Your task to perform on an android device: Open Maps and search for coffee Image 0: 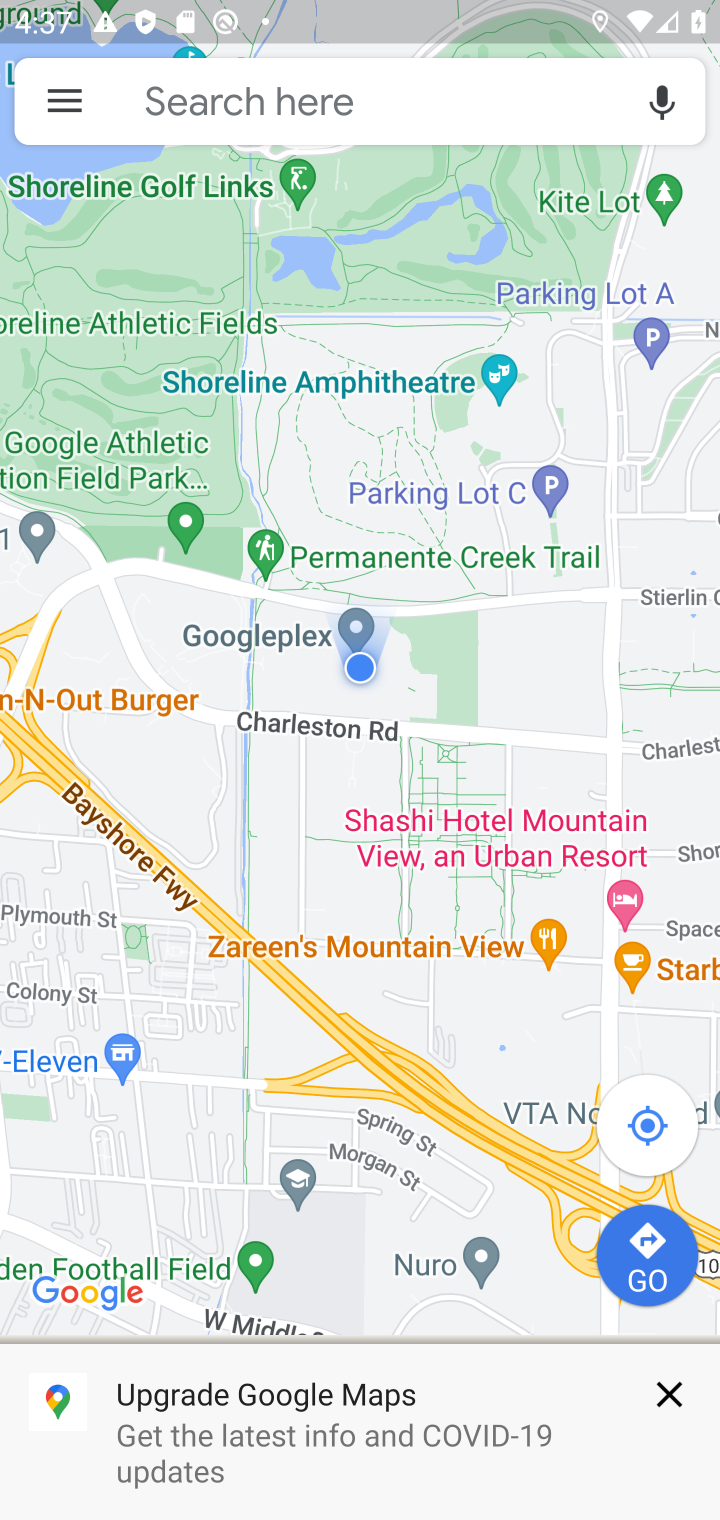
Step 0: press home button
Your task to perform on an android device: Open Maps and search for coffee Image 1: 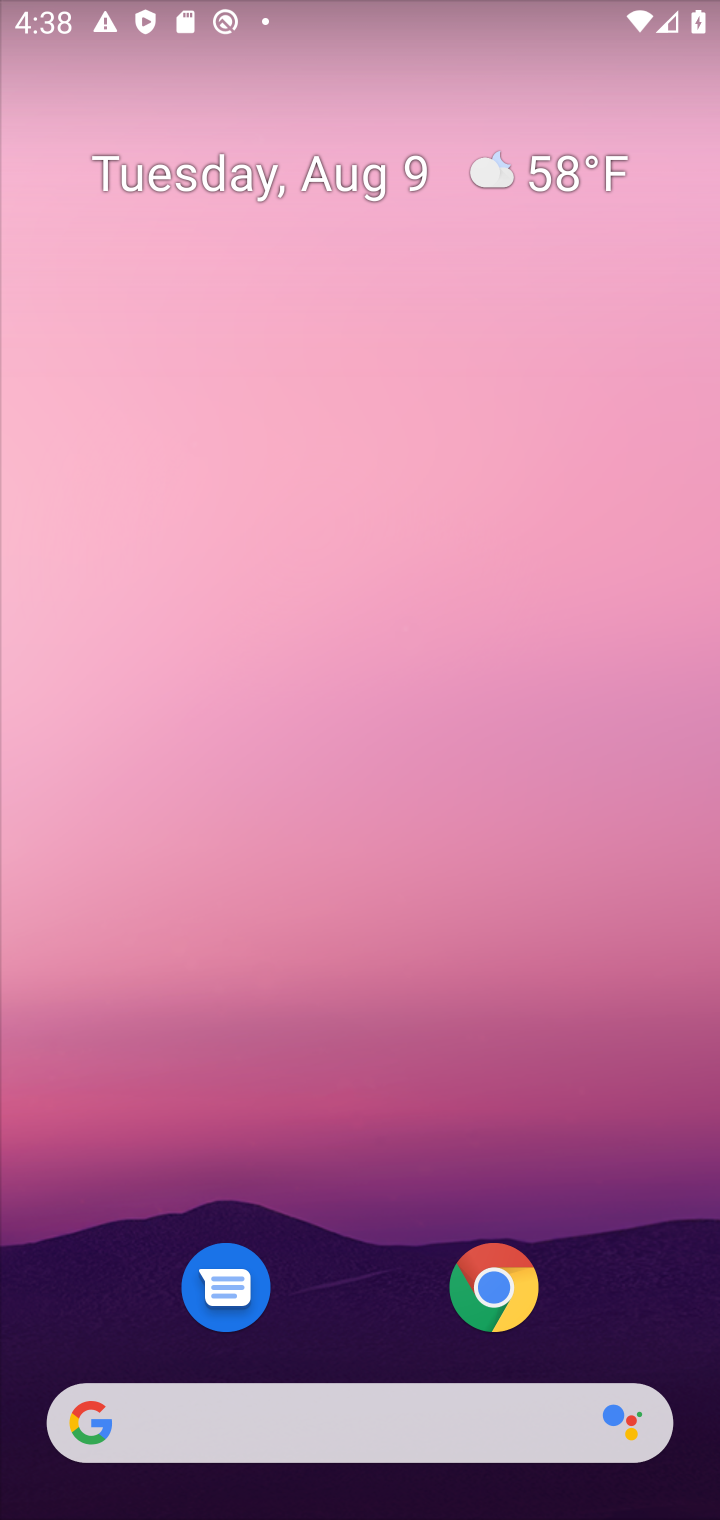
Step 1: drag from (348, 1150) to (377, 453)
Your task to perform on an android device: Open Maps and search for coffee Image 2: 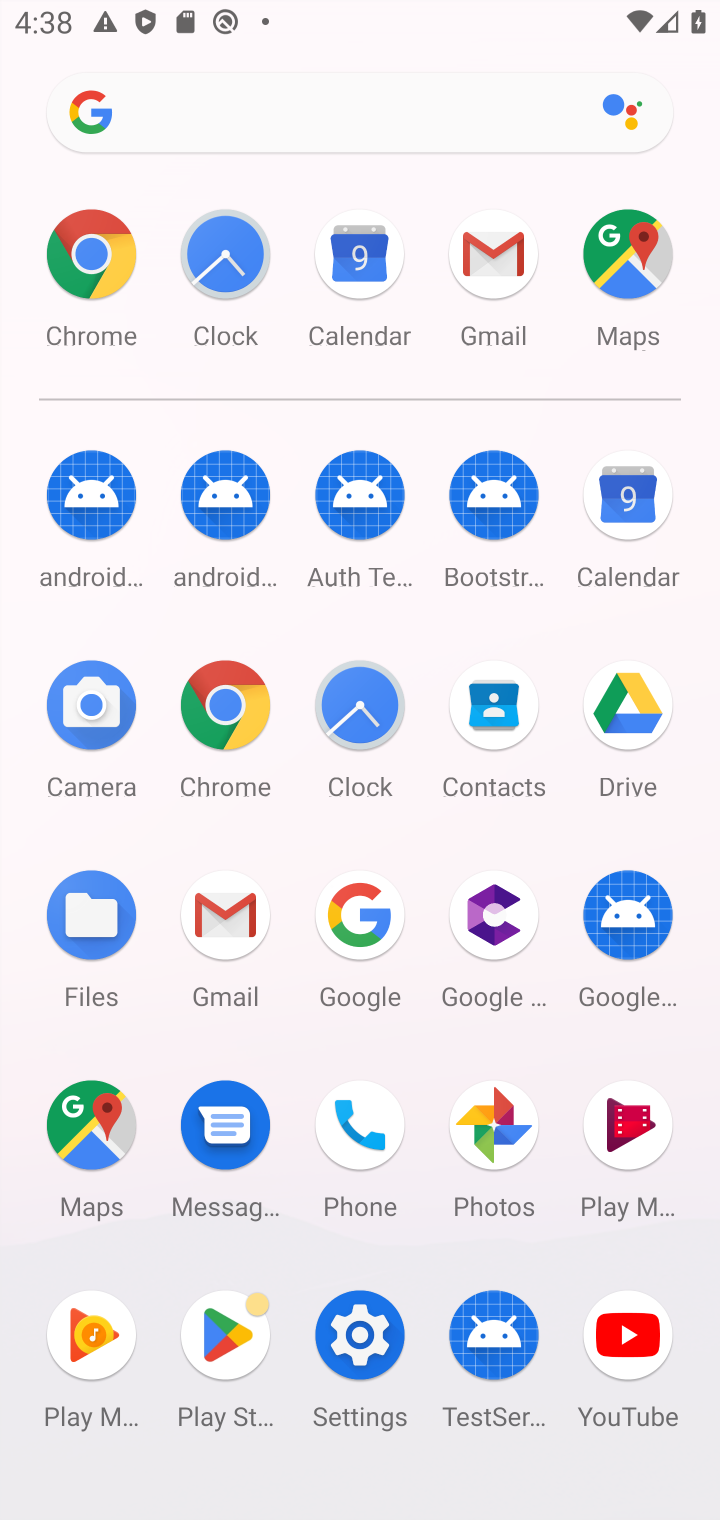
Step 2: click (627, 268)
Your task to perform on an android device: Open Maps and search for coffee Image 3: 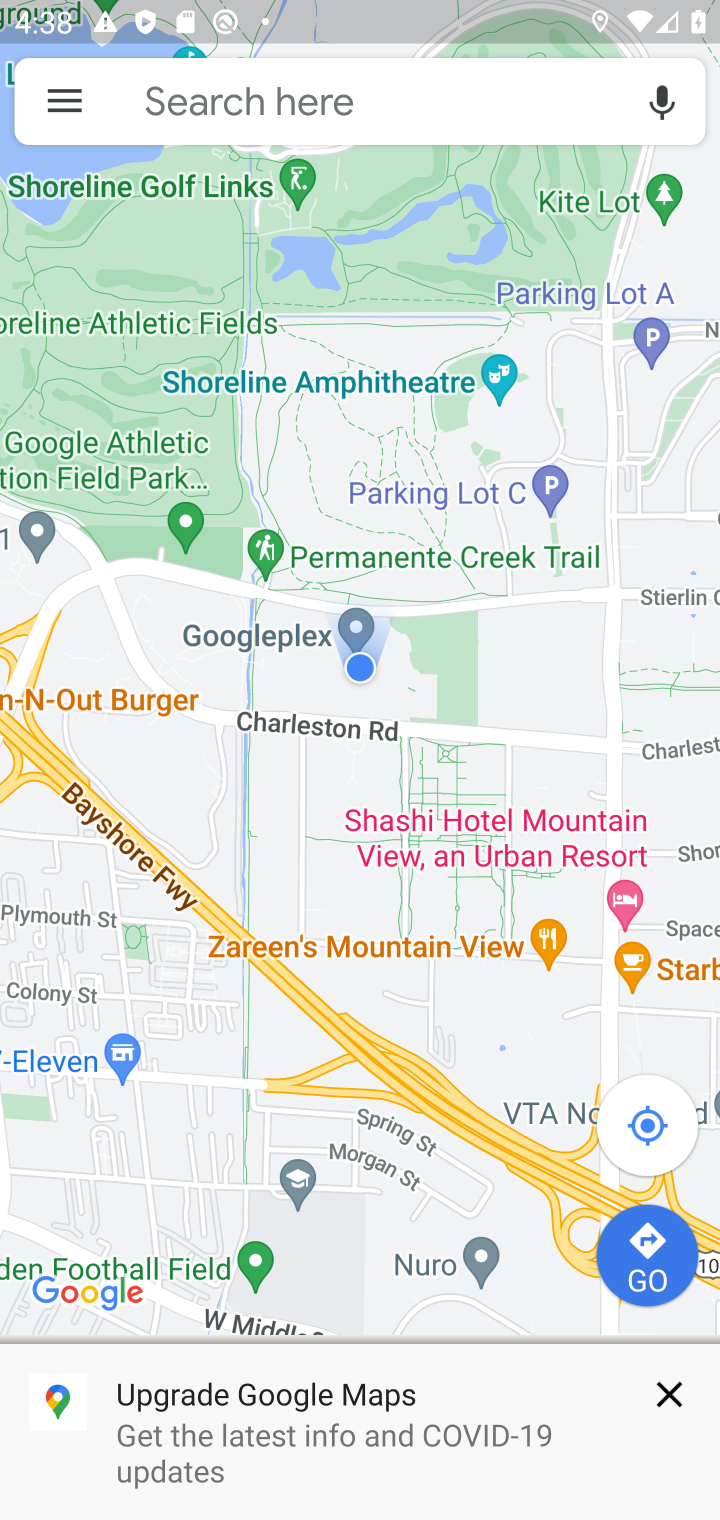
Step 3: click (391, 104)
Your task to perform on an android device: Open Maps and search for coffee Image 4: 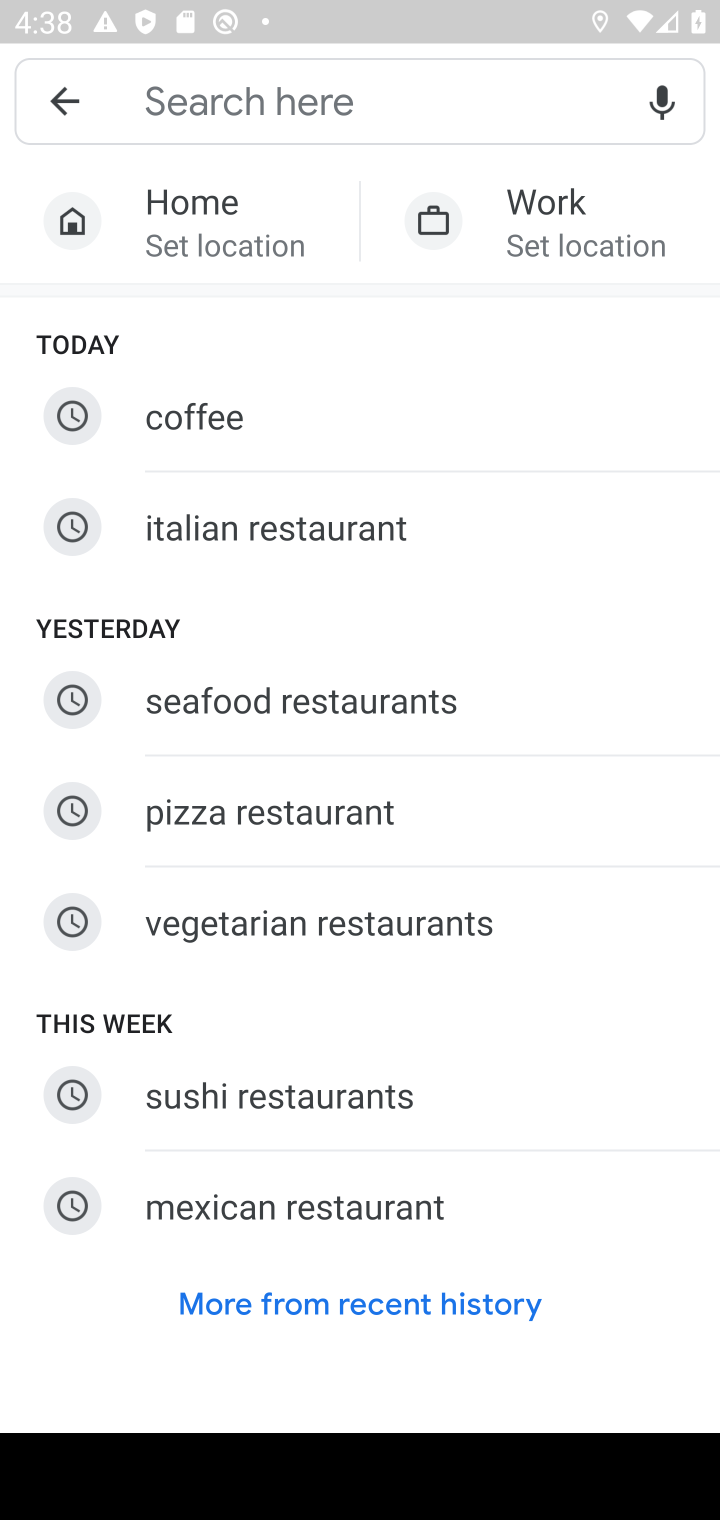
Step 4: type "coffee"
Your task to perform on an android device: Open Maps and search for coffee Image 5: 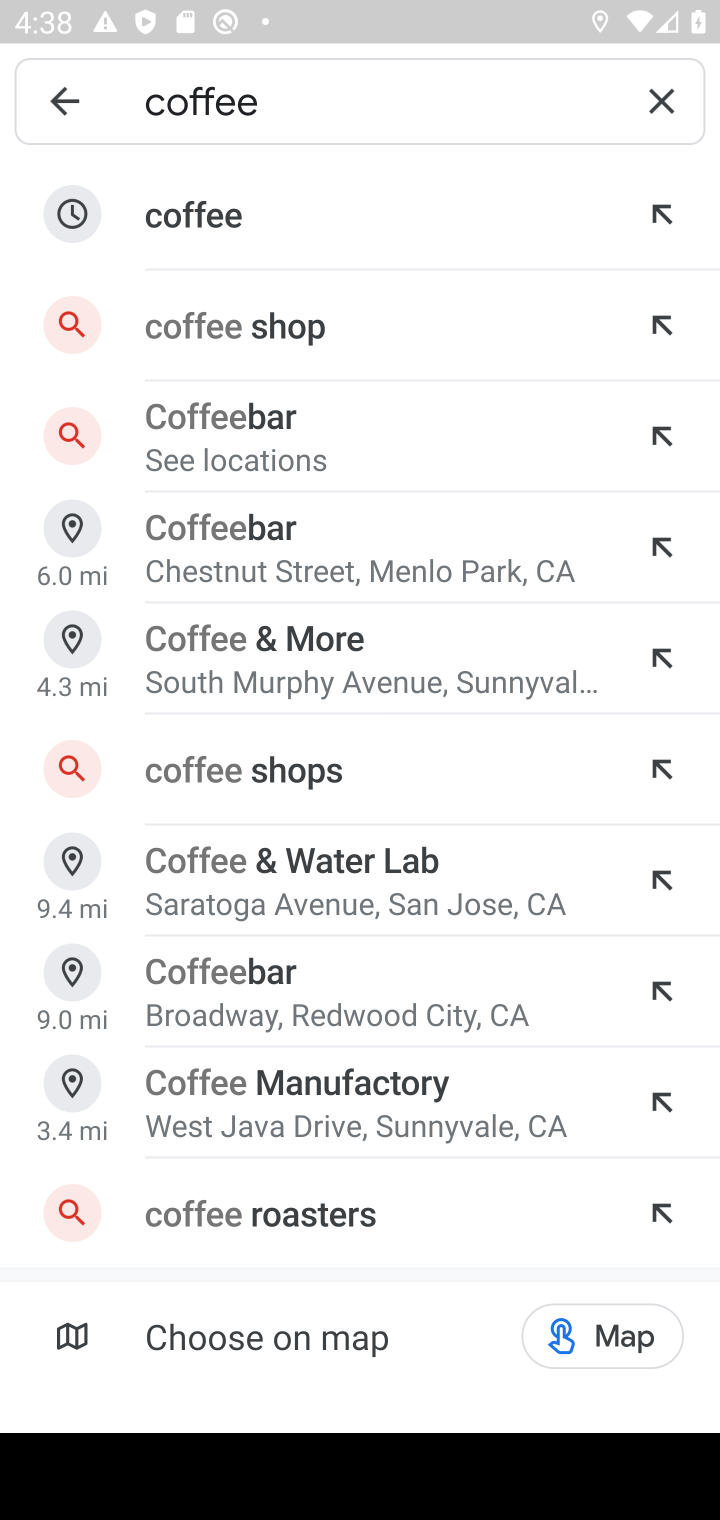
Step 5: press enter
Your task to perform on an android device: Open Maps and search for coffee Image 6: 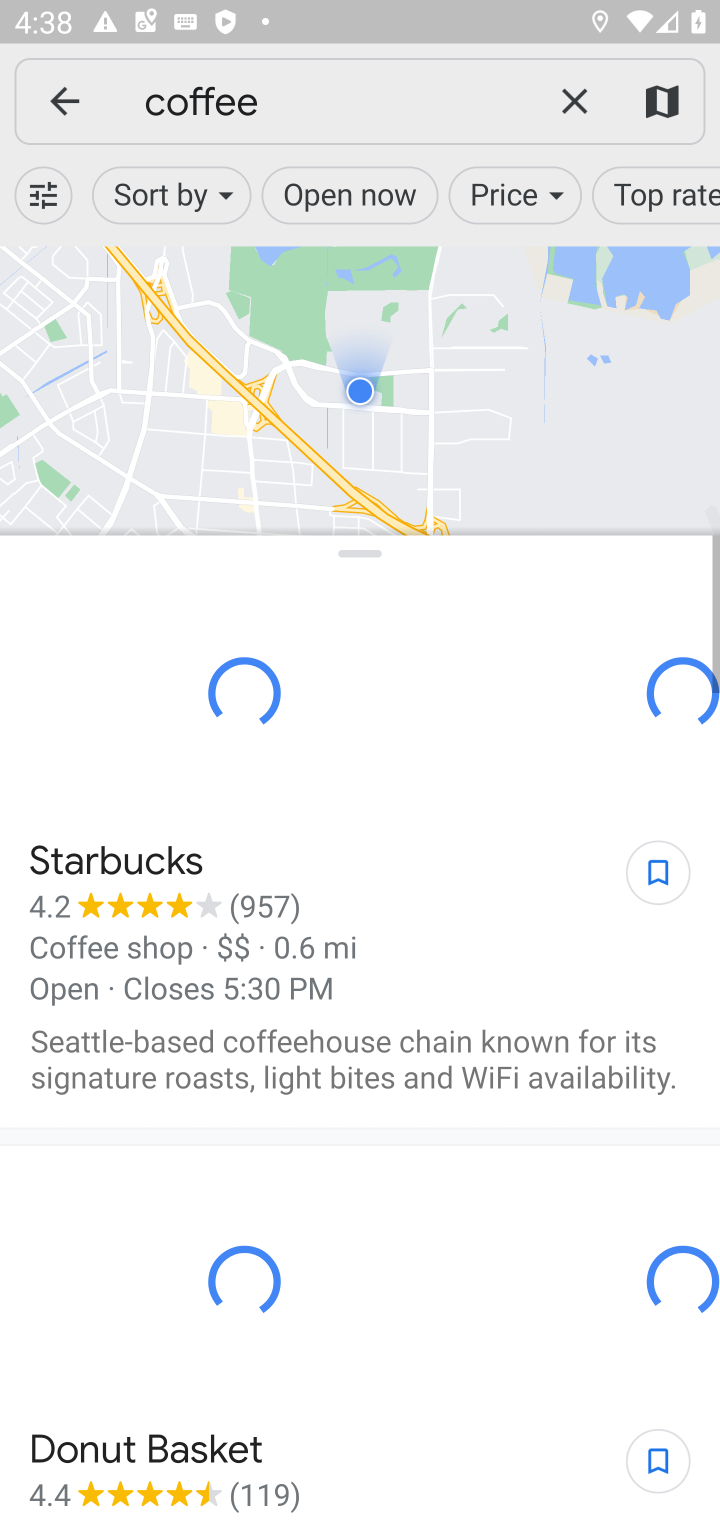
Step 6: task complete